Your task to perform on an android device: allow cookies in the chrome app Image 0: 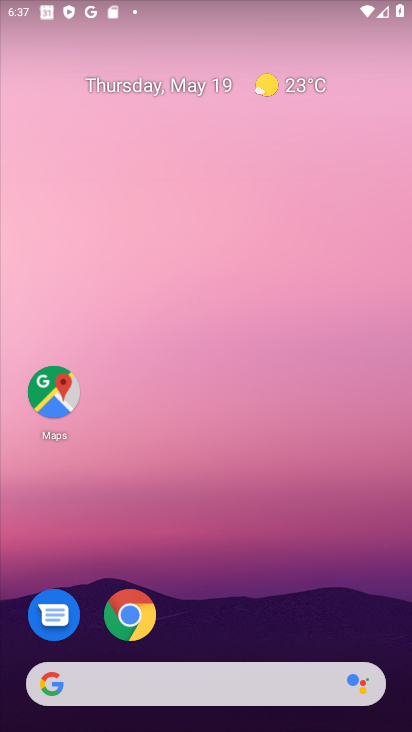
Step 0: drag from (311, 610) to (238, 5)
Your task to perform on an android device: allow cookies in the chrome app Image 1: 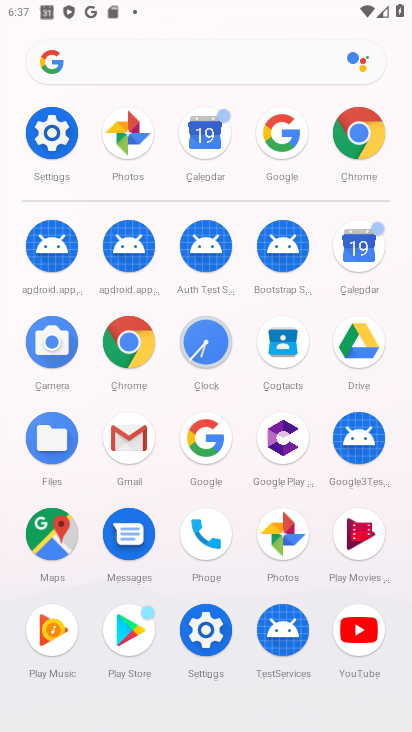
Step 1: click (349, 149)
Your task to perform on an android device: allow cookies in the chrome app Image 2: 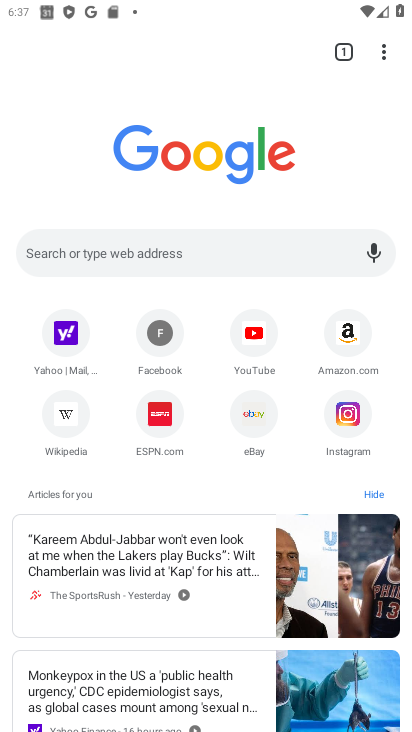
Step 2: click (382, 44)
Your task to perform on an android device: allow cookies in the chrome app Image 3: 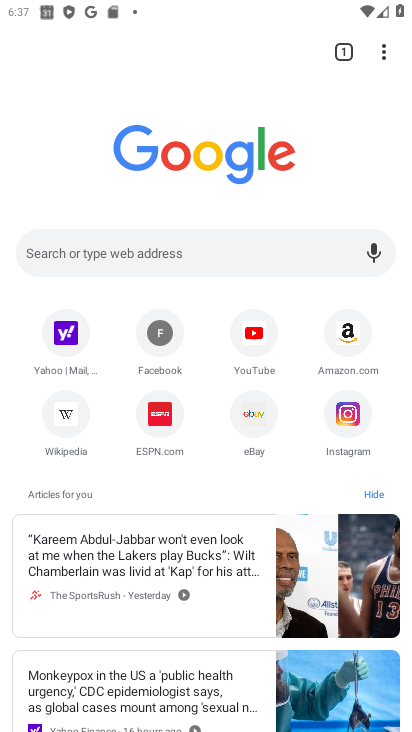
Step 3: click (394, 35)
Your task to perform on an android device: allow cookies in the chrome app Image 4: 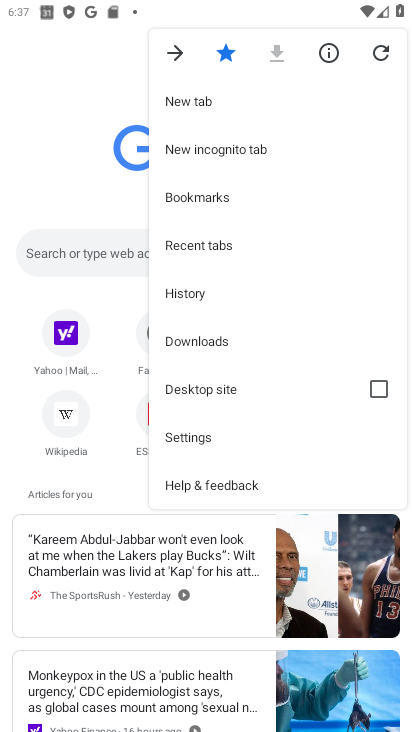
Step 4: click (240, 294)
Your task to perform on an android device: allow cookies in the chrome app Image 5: 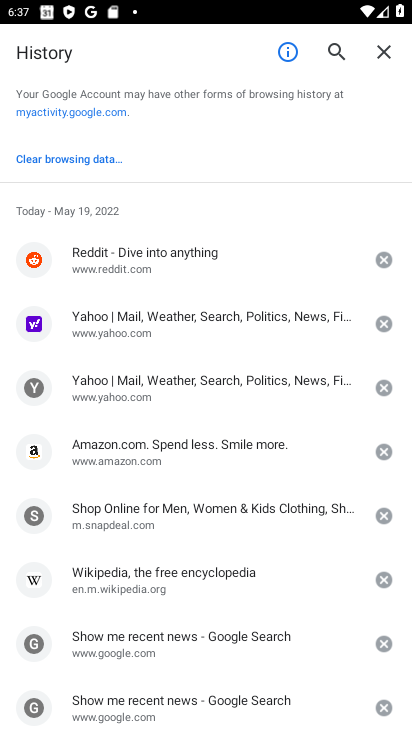
Step 5: click (42, 155)
Your task to perform on an android device: allow cookies in the chrome app Image 6: 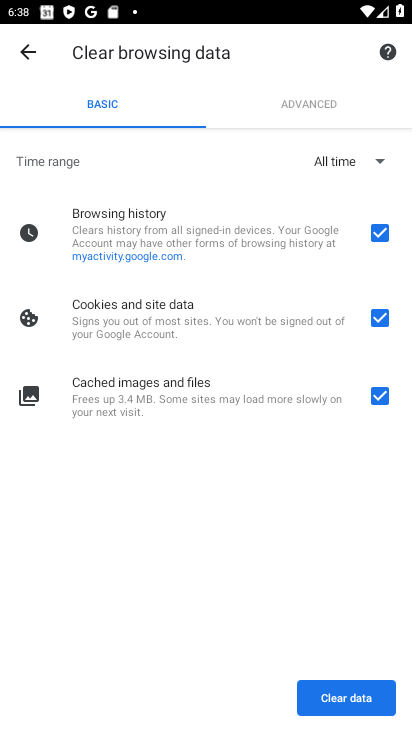
Step 6: task complete